Your task to perform on an android device: visit the assistant section in the google photos Image 0: 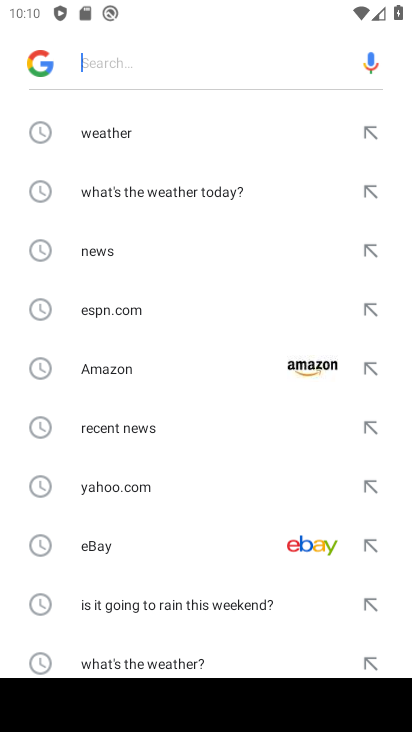
Step 0: press home button
Your task to perform on an android device: visit the assistant section in the google photos Image 1: 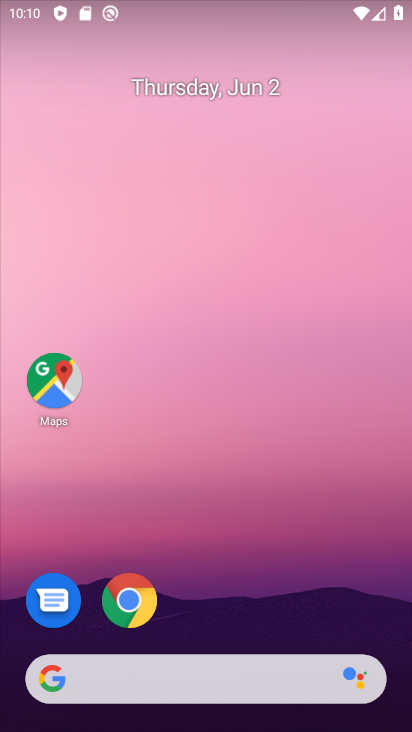
Step 1: drag from (212, 595) to (219, 20)
Your task to perform on an android device: visit the assistant section in the google photos Image 2: 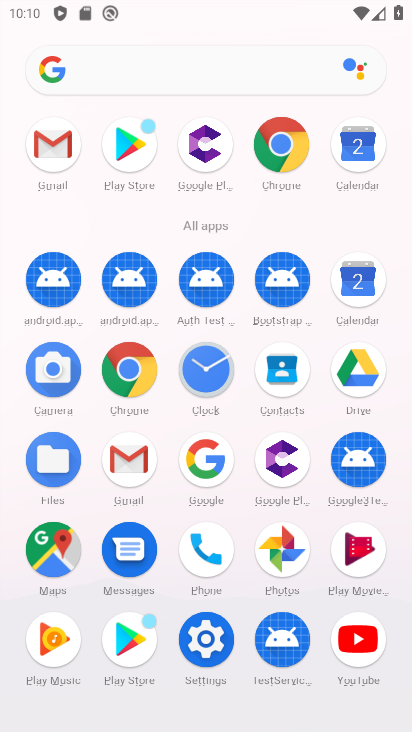
Step 2: click (281, 547)
Your task to perform on an android device: visit the assistant section in the google photos Image 3: 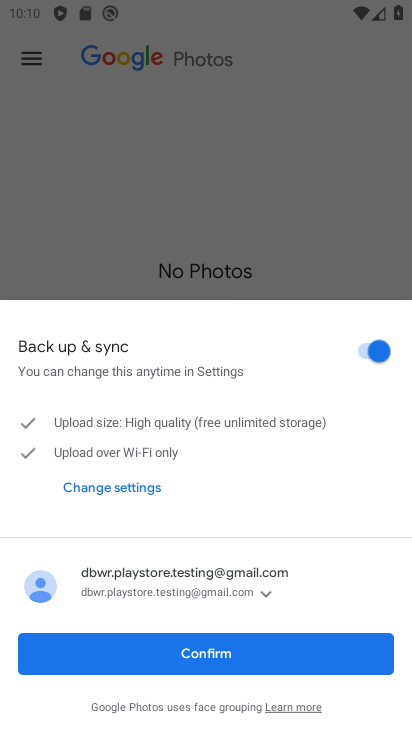
Step 3: click (216, 640)
Your task to perform on an android device: visit the assistant section in the google photos Image 4: 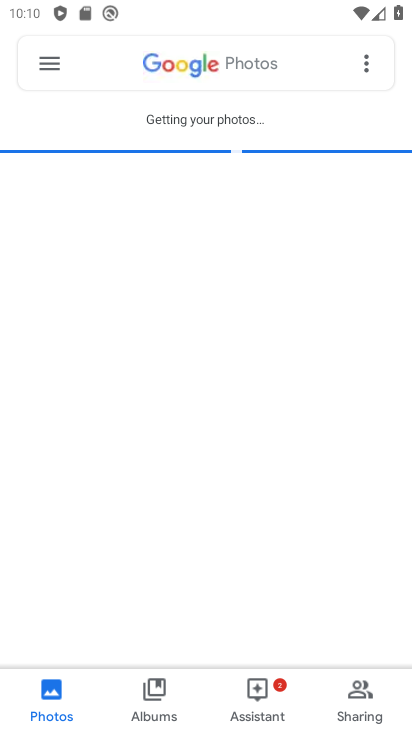
Step 4: click (251, 707)
Your task to perform on an android device: visit the assistant section in the google photos Image 5: 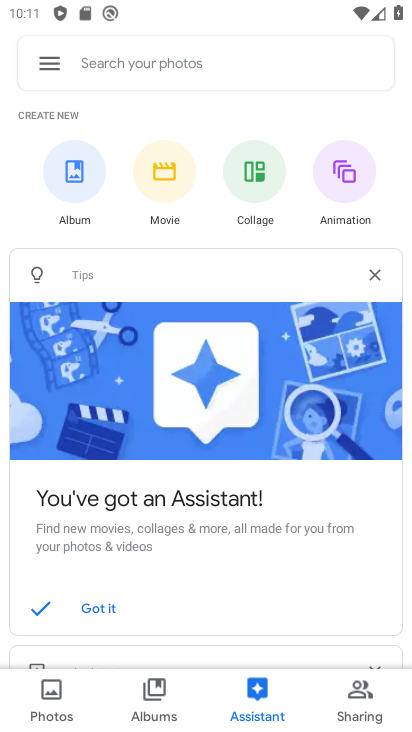
Step 5: task complete